Your task to perform on an android device: What's on my calendar today? Image 0: 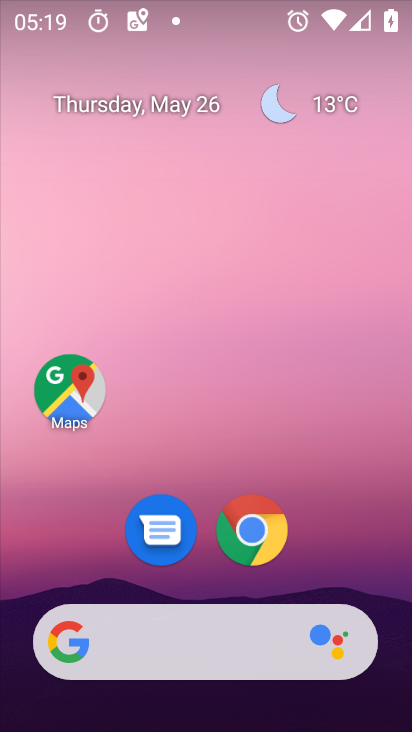
Step 0: drag from (277, 568) to (289, 2)
Your task to perform on an android device: What's on my calendar today? Image 1: 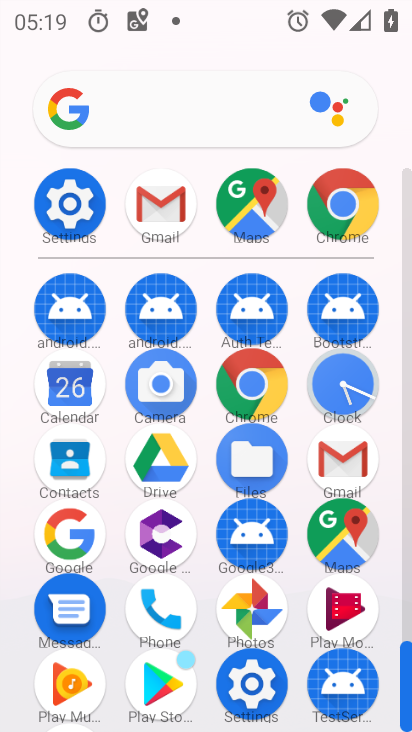
Step 1: click (81, 394)
Your task to perform on an android device: What's on my calendar today? Image 2: 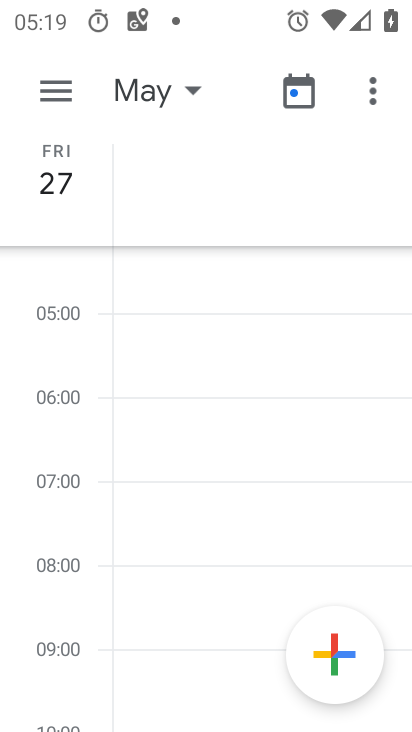
Step 2: click (195, 91)
Your task to perform on an android device: What's on my calendar today? Image 3: 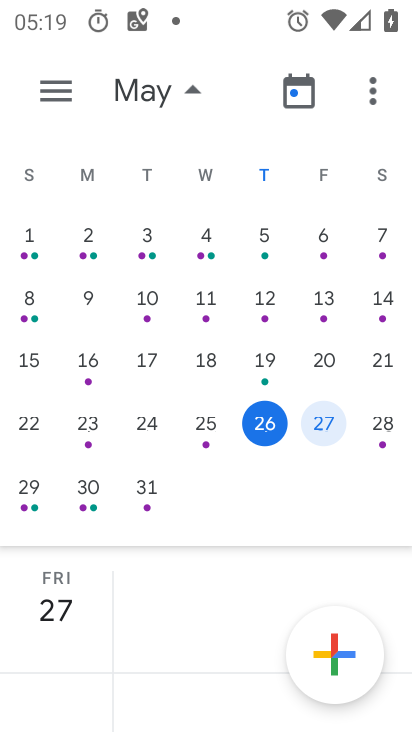
Step 3: click (248, 422)
Your task to perform on an android device: What's on my calendar today? Image 4: 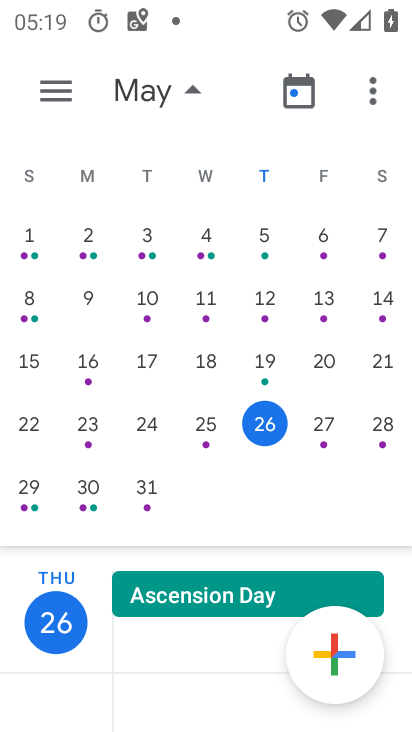
Step 4: task complete